Your task to perform on an android device: Go to wifi settings Image 0: 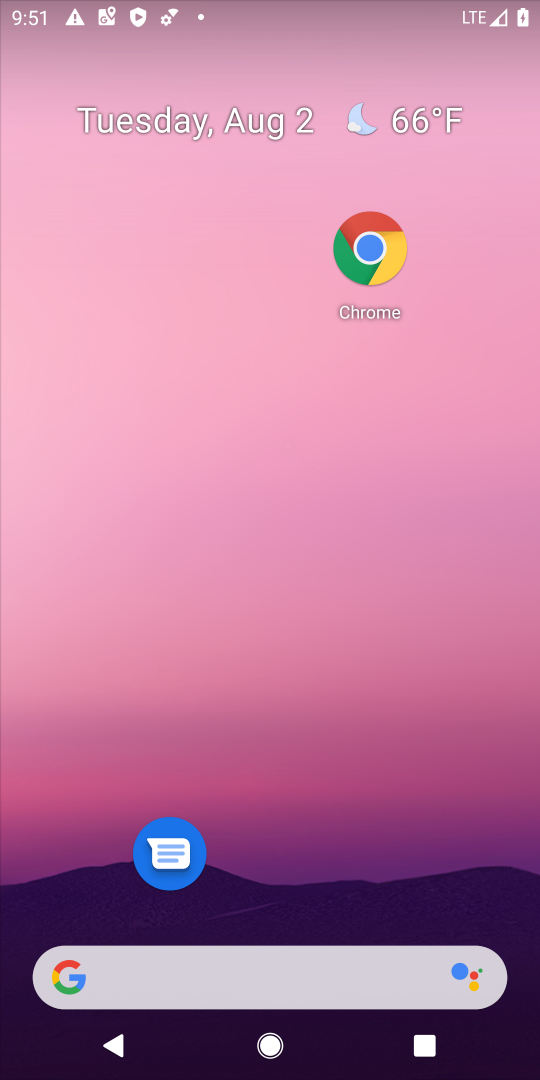
Step 0: press home button
Your task to perform on an android device: Go to wifi settings Image 1: 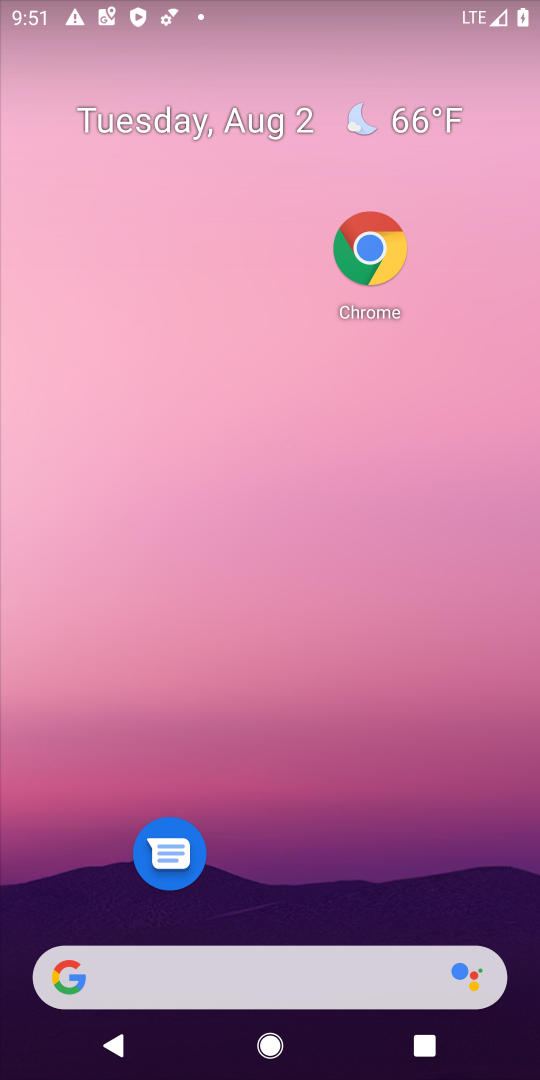
Step 1: drag from (302, 931) to (201, 71)
Your task to perform on an android device: Go to wifi settings Image 2: 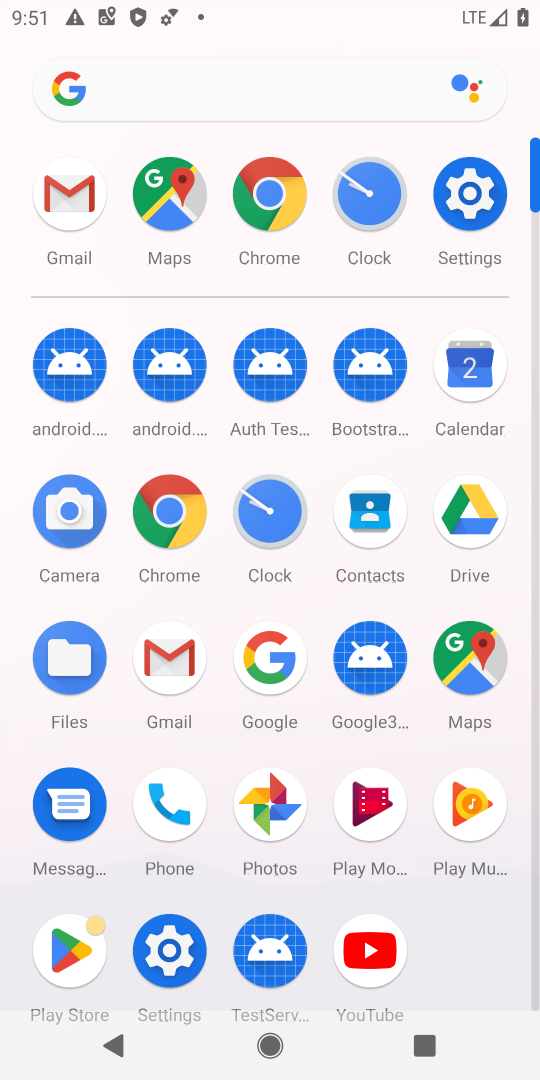
Step 2: click (476, 206)
Your task to perform on an android device: Go to wifi settings Image 3: 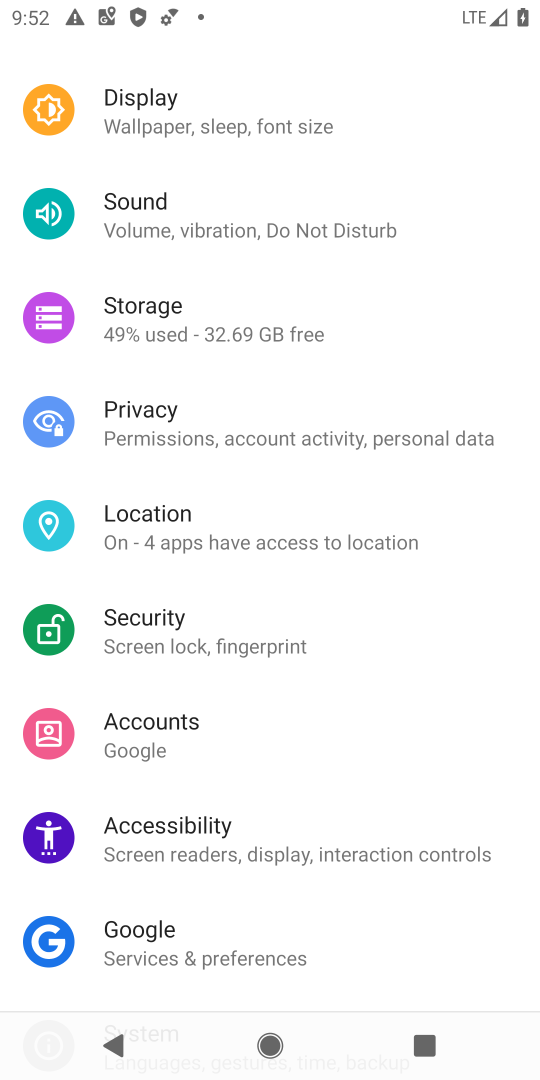
Step 3: drag from (167, 186) to (253, 1001)
Your task to perform on an android device: Go to wifi settings Image 4: 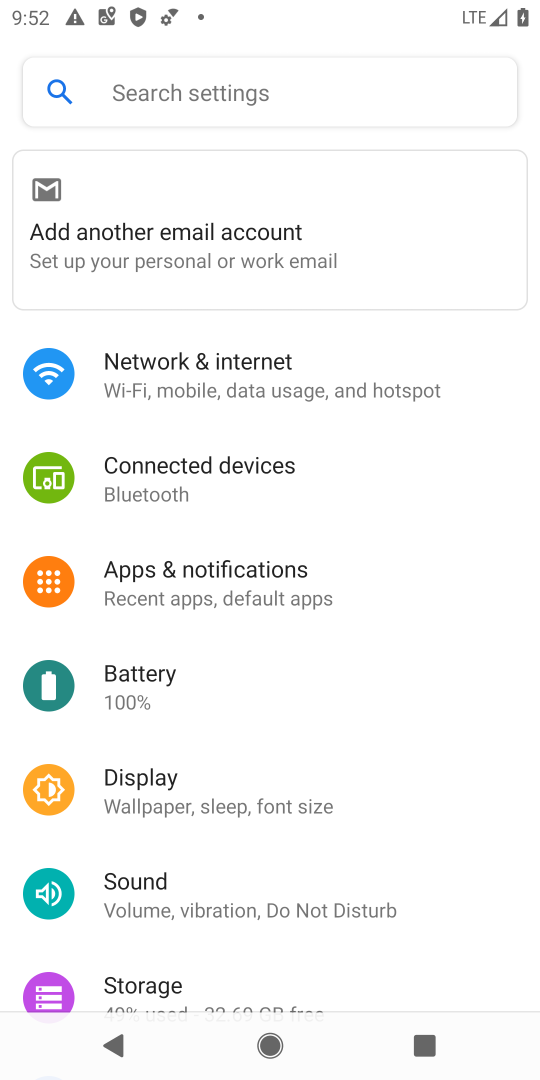
Step 4: click (188, 370)
Your task to perform on an android device: Go to wifi settings Image 5: 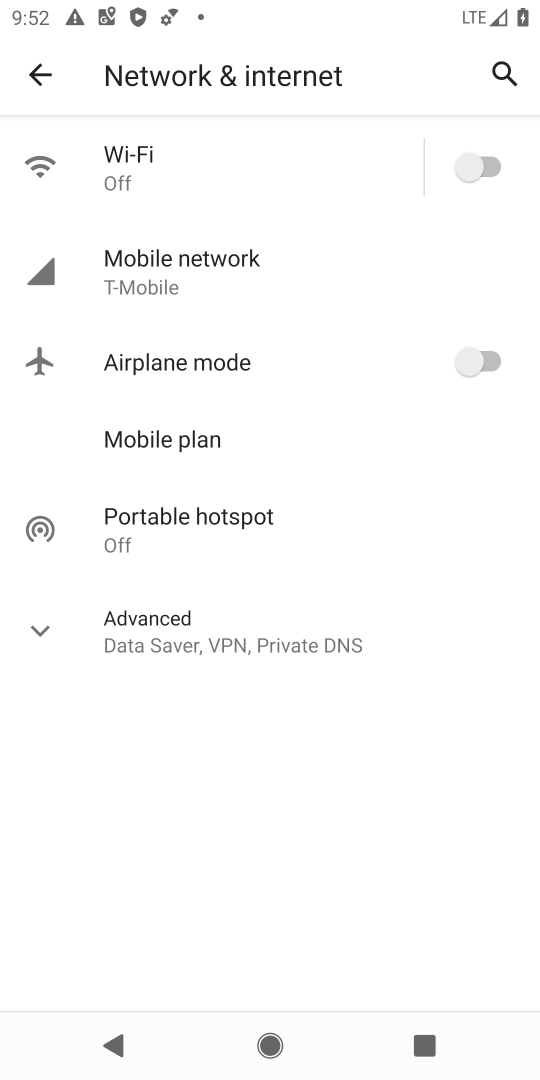
Step 5: click (141, 154)
Your task to perform on an android device: Go to wifi settings Image 6: 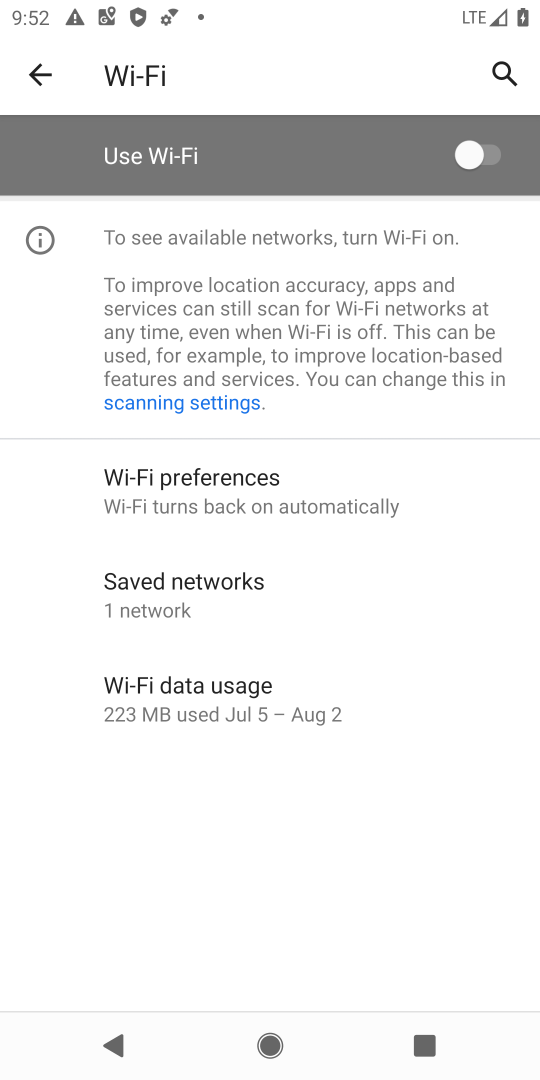
Step 6: task complete